Your task to perform on an android device: toggle translation in the chrome app Image 0: 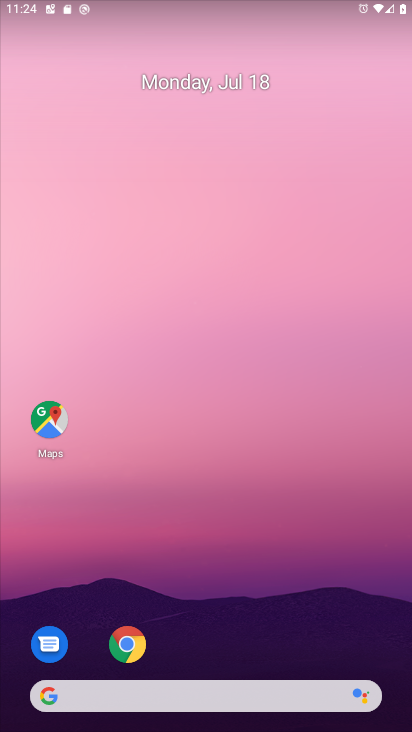
Step 0: click (131, 641)
Your task to perform on an android device: toggle translation in the chrome app Image 1: 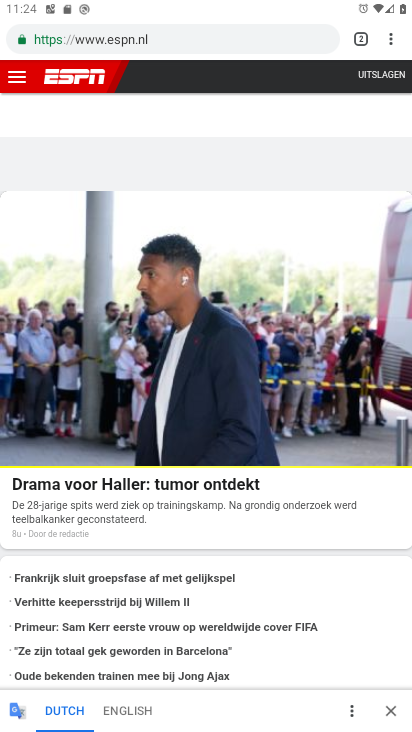
Step 1: click (396, 42)
Your task to perform on an android device: toggle translation in the chrome app Image 2: 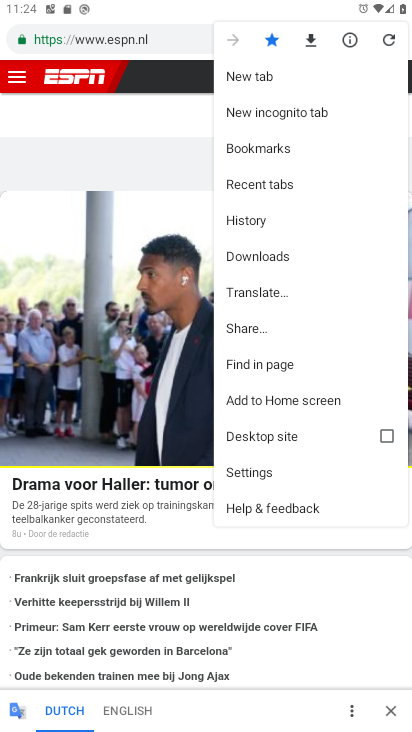
Step 2: click (248, 473)
Your task to perform on an android device: toggle translation in the chrome app Image 3: 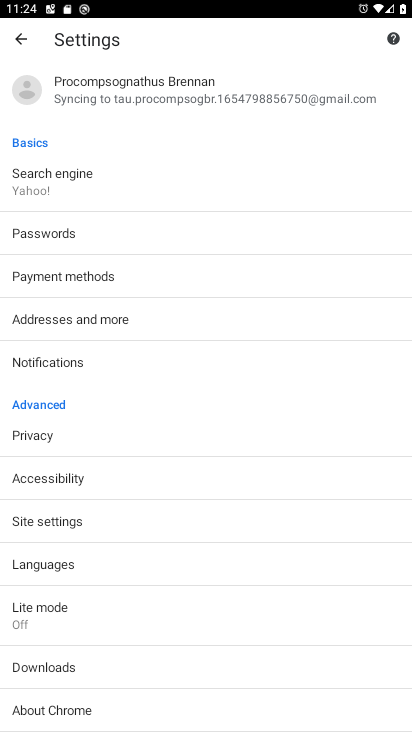
Step 3: task complete